Your task to perform on an android device: set the stopwatch Image 0: 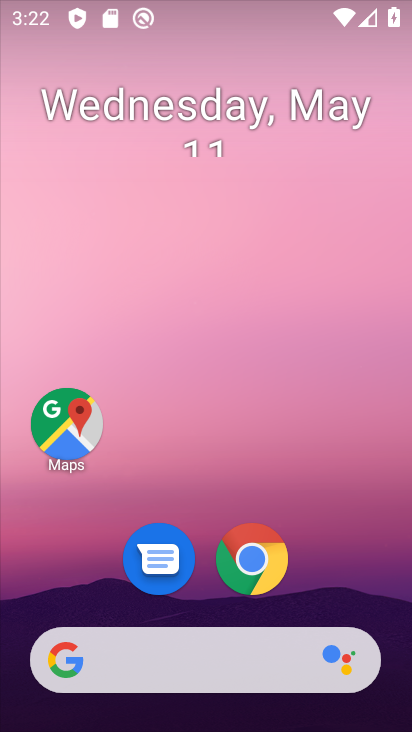
Step 0: drag from (321, 613) to (140, 106)
Your task to perform on an android device: set the stopwatch Image 1: 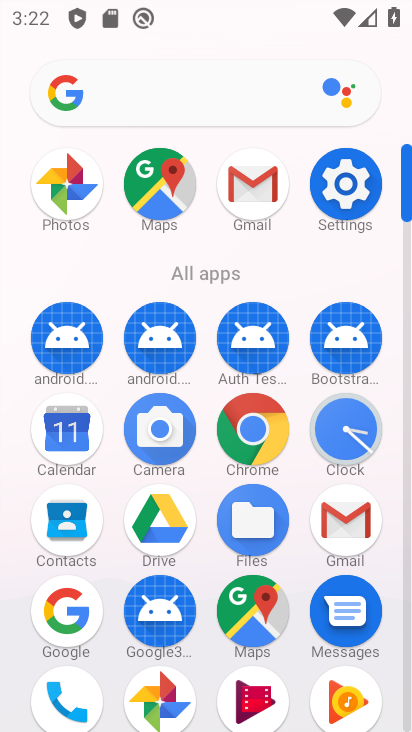
Step 1: click (361, 435)
Your task to perform on an android device: set the stopwatch Image 2: 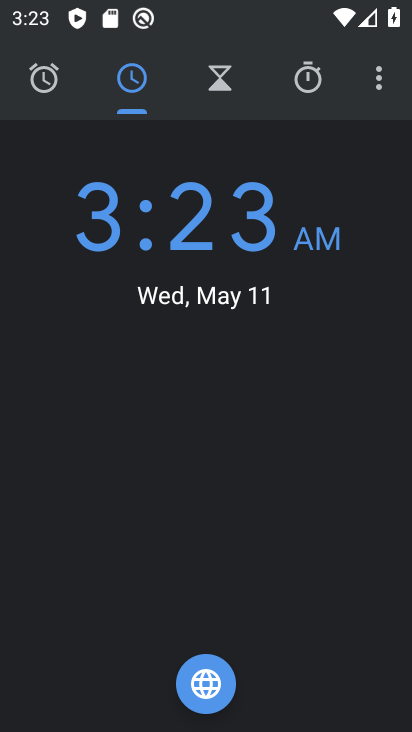
Step 2: click (307, 75)
Your task to perform on an android device: set the stopwatch Image 3: 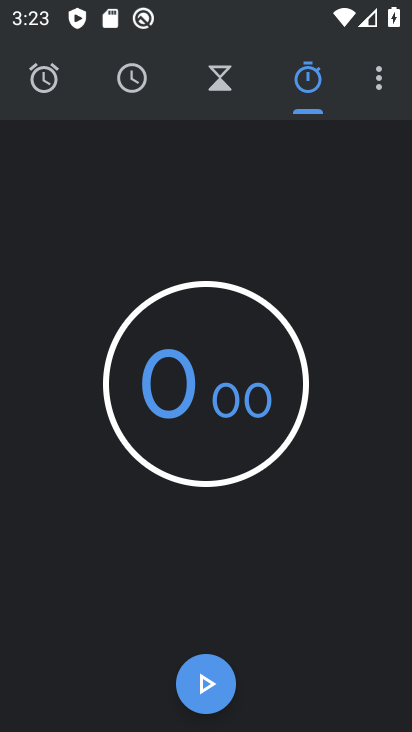
Step 3: click (208, 682)
Your task to perform on an android device: set the stopwatch Image 4: 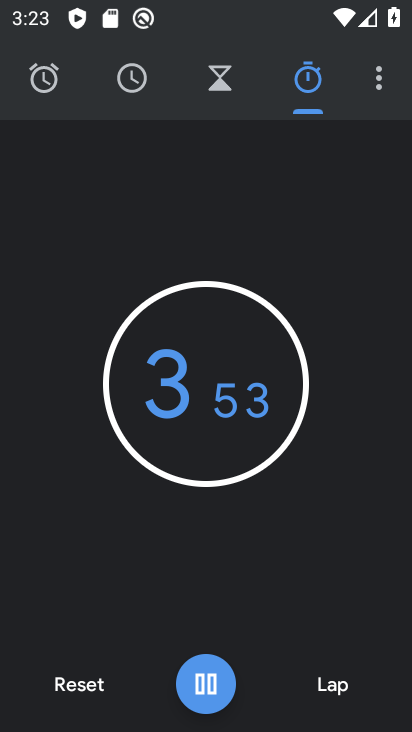
Step 4: click (206, 681)
Your task to perform on an android device: set the stopwatch Image 5: 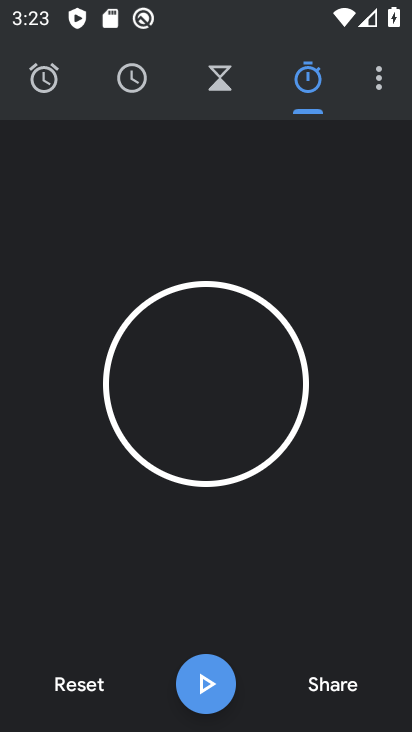
Step 5: click (207, 677)
Your task to perform on an android device: set the stopwatch Image 6: 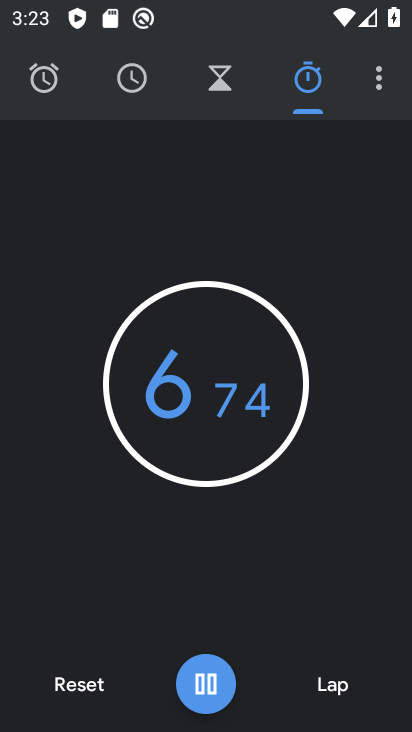
Step 6: click (201, 677)
Your task to perform on an android device: set the stopwatch Image 7: 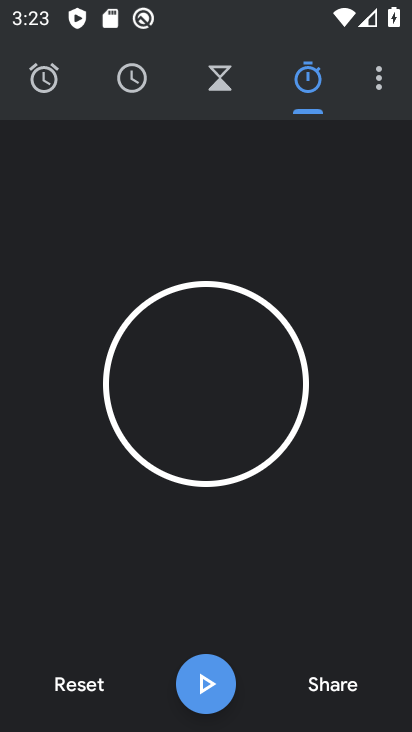
Step 7: task complete